Your task to perform on an android device: Do I have any events this weekend? Image 0: 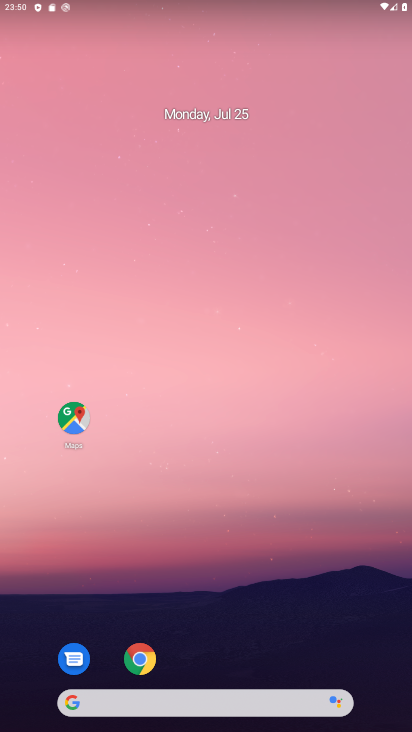
Step 0: drag from (249, 539) to (127, 101)
Your task to perform on an android device: Do I have any events this weekend? Image 1: 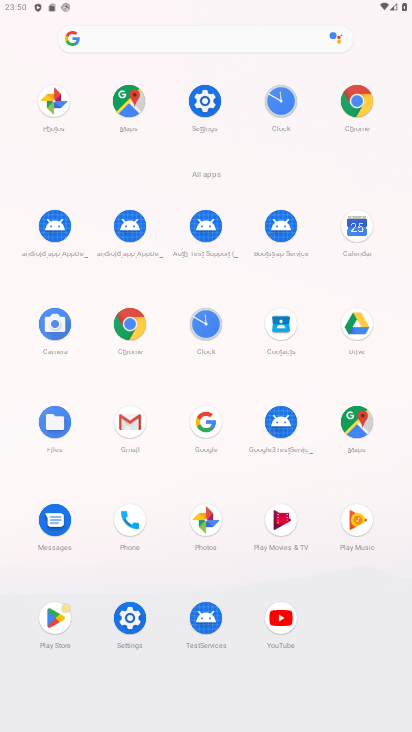
Step 1: click (359, 229)
Your task to perform on an android device: Do I have any events this weekend? Image 2: 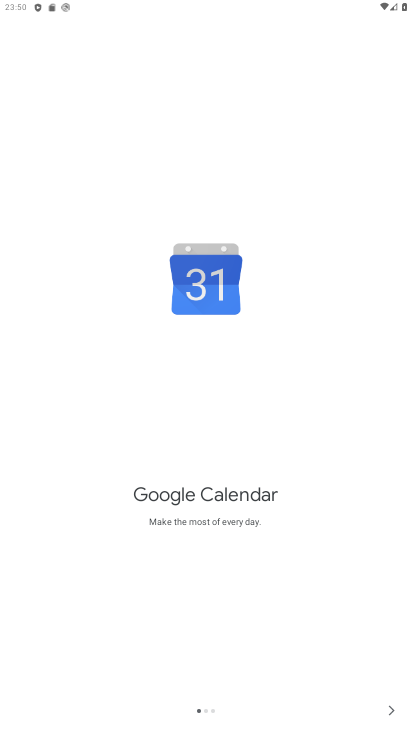
Step 2: click (381, 699)
Your task to perform on an android device: Do I have any events this weekend? Image 3: 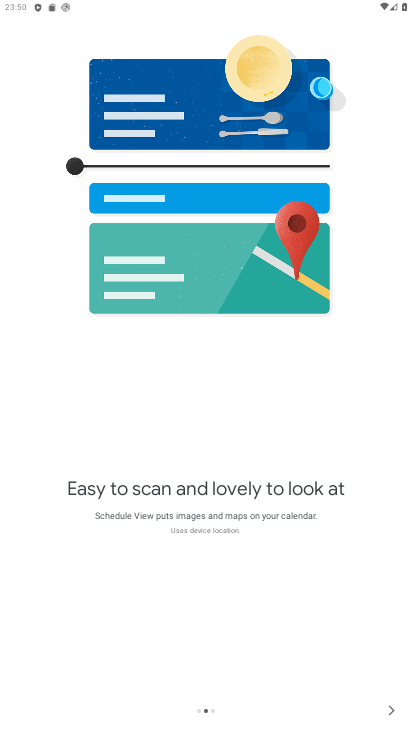
Step 3: click (394, 717)
Your task to perform on an android device: Do I have any events this weekend? Image 4: 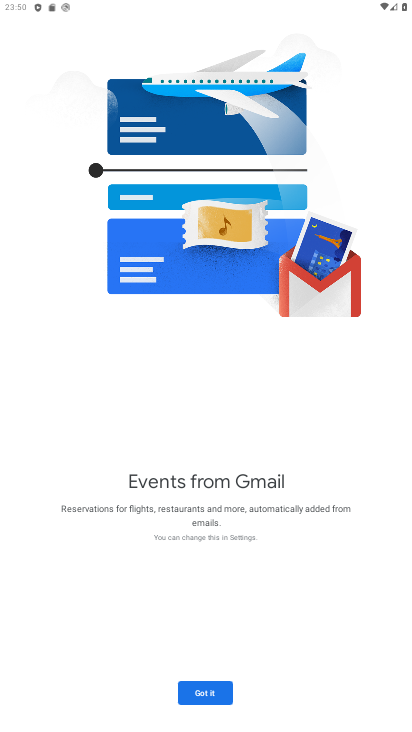
Step 4: click (209, 697)
Your task to perform on an android device: Do I have any events this weekend? Image 5: 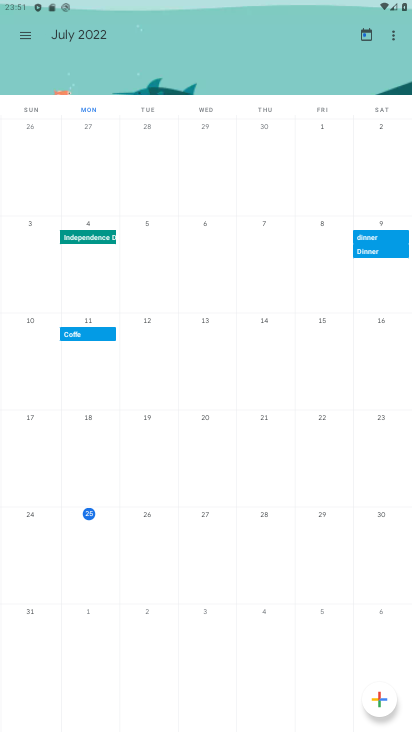
Step 5: click (27, 39)
Your task to perform on an android device: Do I have any events this weekend? Image 6: 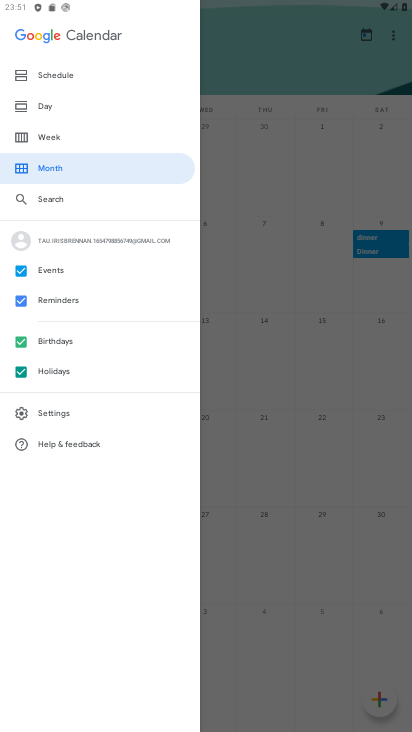
Step 6: click (38, 130)
Your task to perform on an android device: Do I have any events this weekend? Image 7: 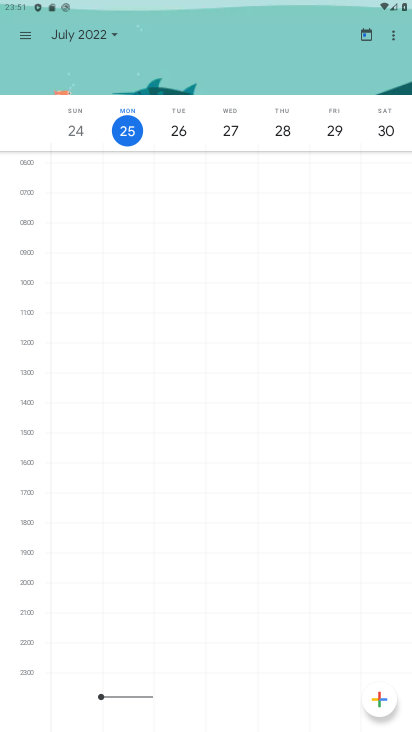
Step 7: click (35, 30)
Your task to perform on an android device: Do I have any events this weekend? Image 8: 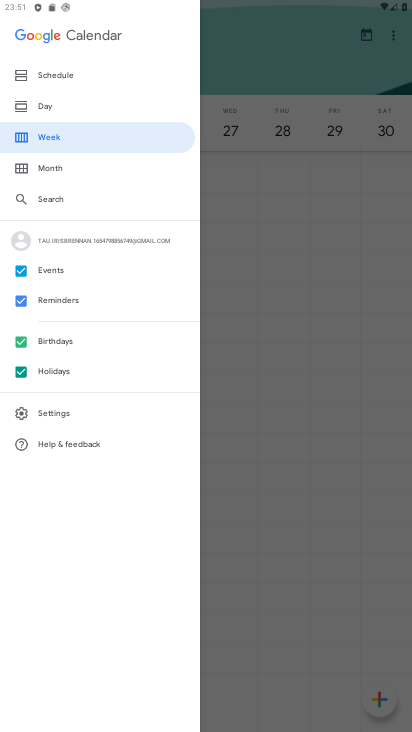
Step 8: click (286, 174)
Your task to perform on an android device: Do I have any events this weekend? Image 9: 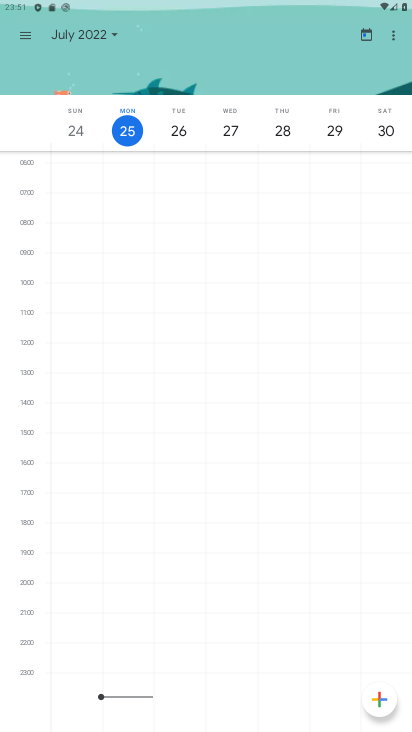
Step 9: drag from (354, 135) to (167, 124)
Your task to perform on an android device: Do I have any events this weekend? Image 10: 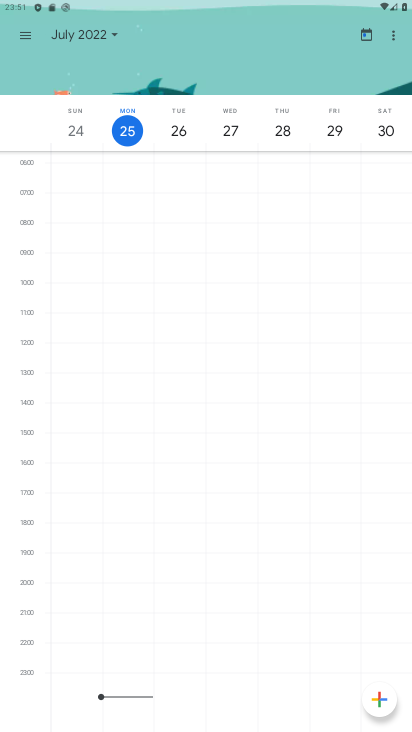
Step 10: click (382, 128)
Your task to perform on an android device: Do I have any events this weekend? Image 11: 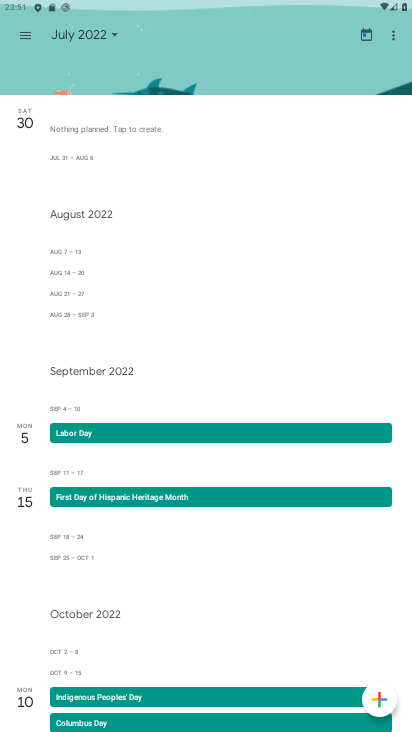
Step 11: task complete